Your task to perform on an android device: star an email in the gmail app Image 0: 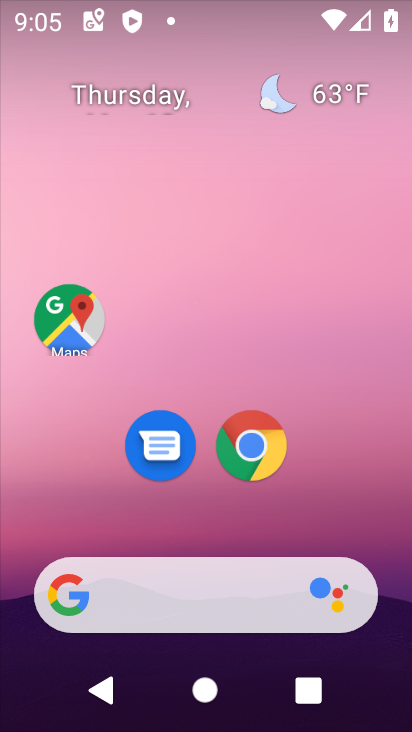
Step 0: drag from (198, 522) to (230, 70)
Your task to perform on an android device: star an email in the gmail app Image 1: 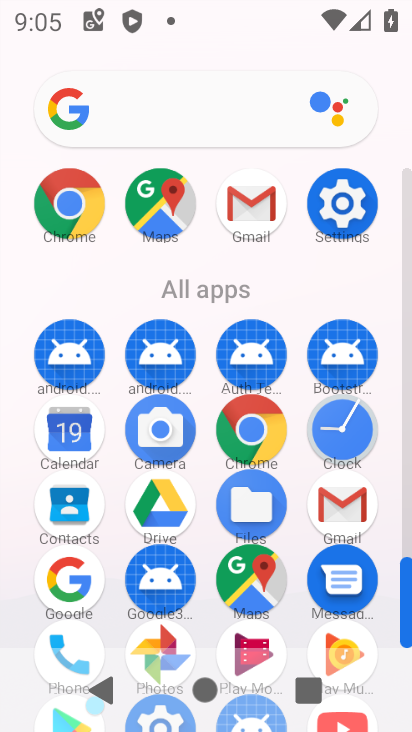
Step 1: click (332, 500)
Your task to perform on an android device: star an email in the gmail app Image 2: 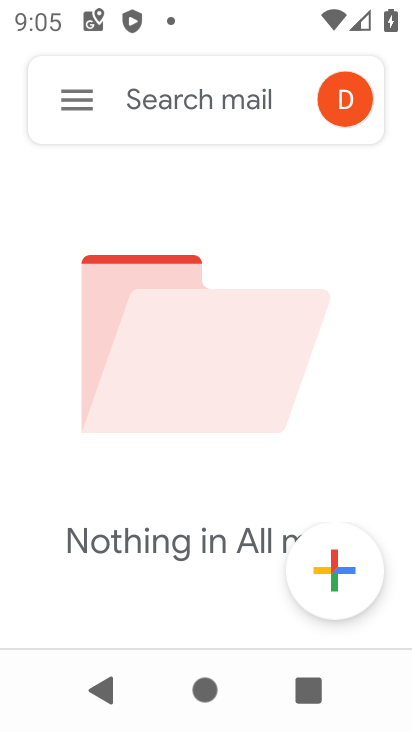
Step 2: click (74, 99)
Your task to perform on an android device: star an email in the gmail app Image 3: 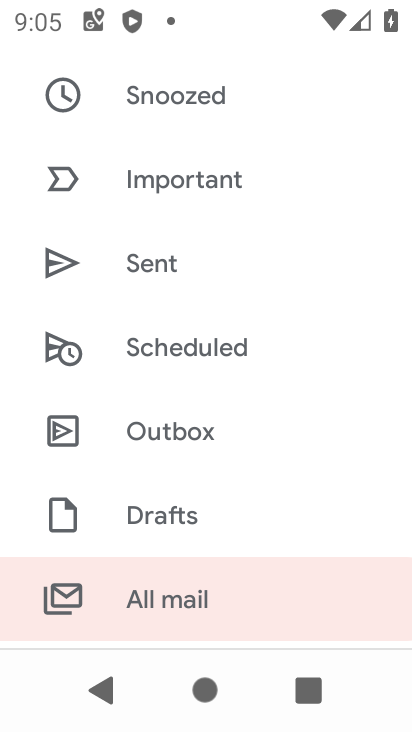
Step 3: click (178, 591)
Your task to perform on an android device: star an email in the gmail app Image 4: 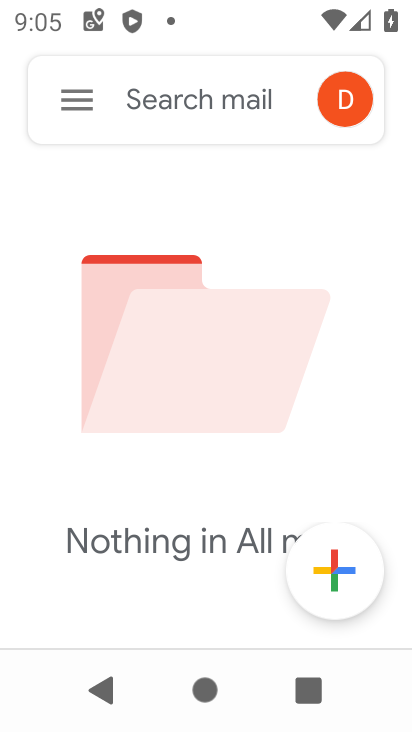
Step 4: task complete